Your task to perform on an android device: Search for vegetarian restaurants on Maps Image 0: 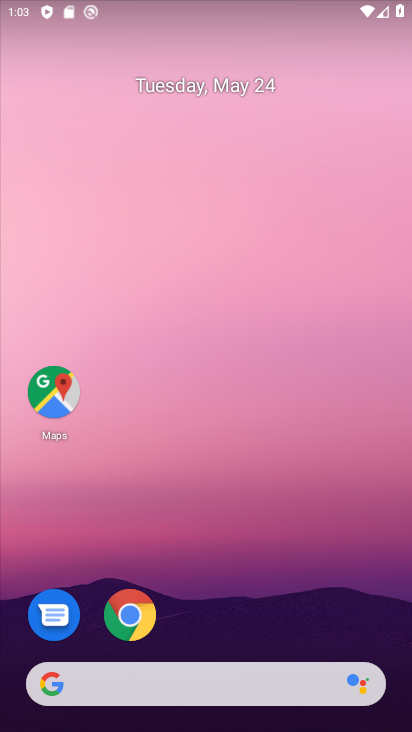
Step 0: press home button
Your task to perform on an android device: Search for vegetarian restaurants on Maps Image 1: 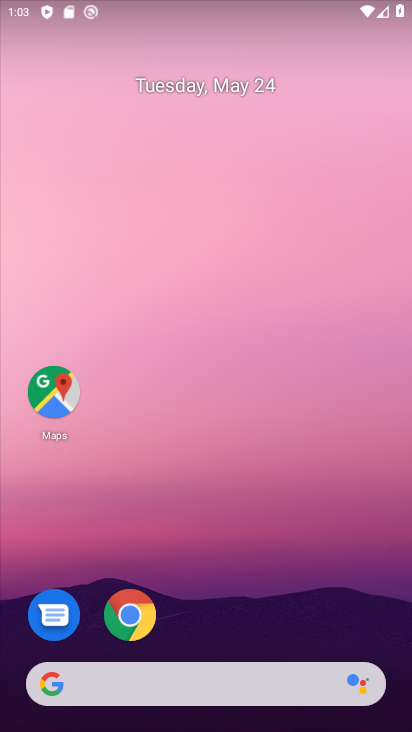
Step 1: drag from (201, 623) to (218, 0)
Your task to perform on an android device: Search for vegetarian restaurants on Maps Image 2: 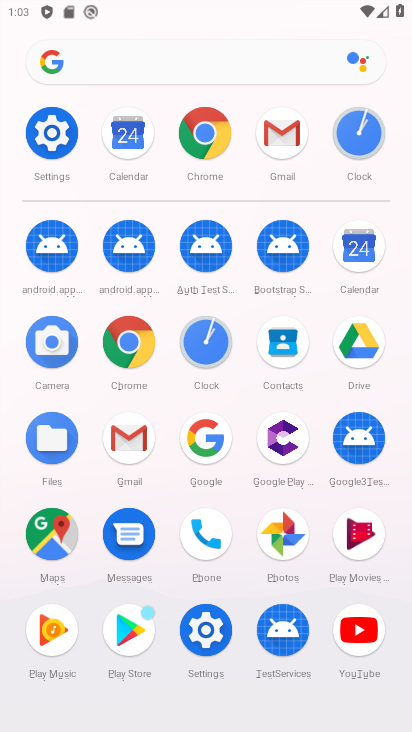
Step 2: click (50, 533)
Your task to perform on an android device: Search for vegetarian restaurants on Maps Image 3: 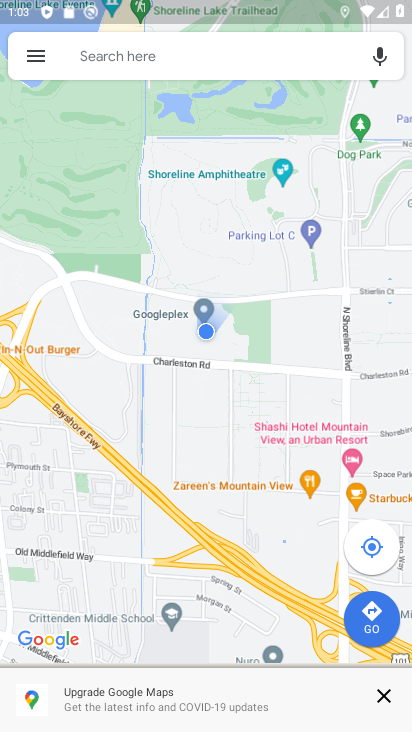
Step 3: click (108, 45)
Your task to perform on an android device: Search for vegetarian restaurants on Maps Image 4: 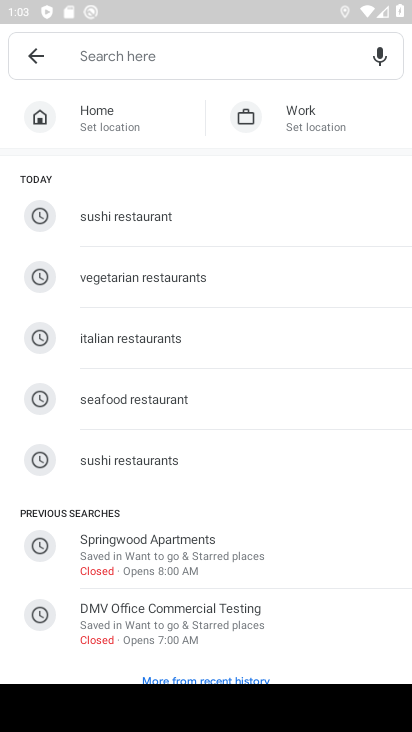
Step 4: type "veget"
Your task to perform on an android device: Search for vegetarian restaurants on Maps Image 5: 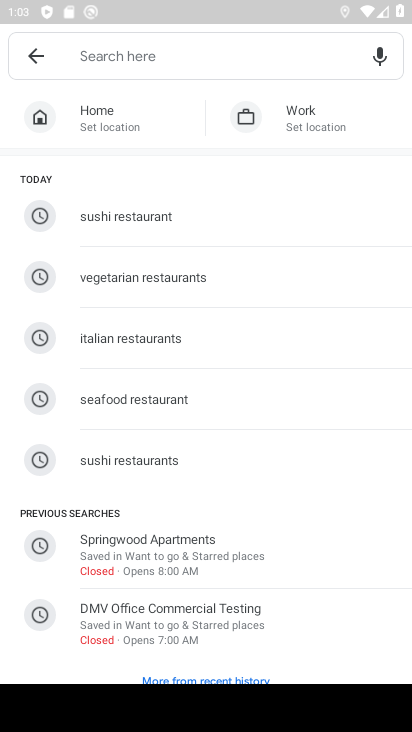
Step 5: click (149, 274)
Your task to perform on an android device: Search for vegetarian restaurants on Maps Image 6: 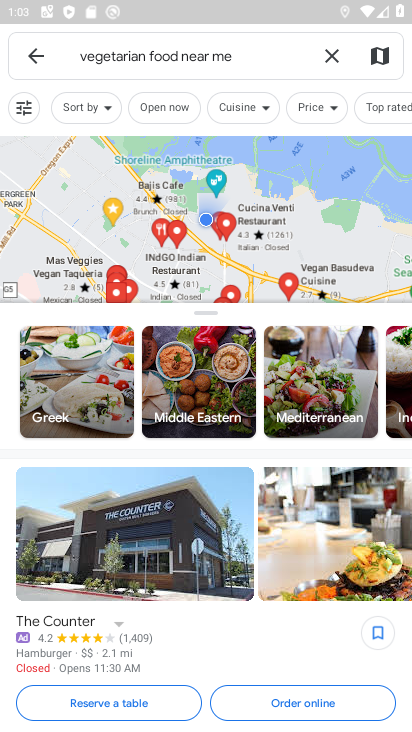
Step 6: task complete